Your task to perform on an android device: turn off sleep mode Image 0: 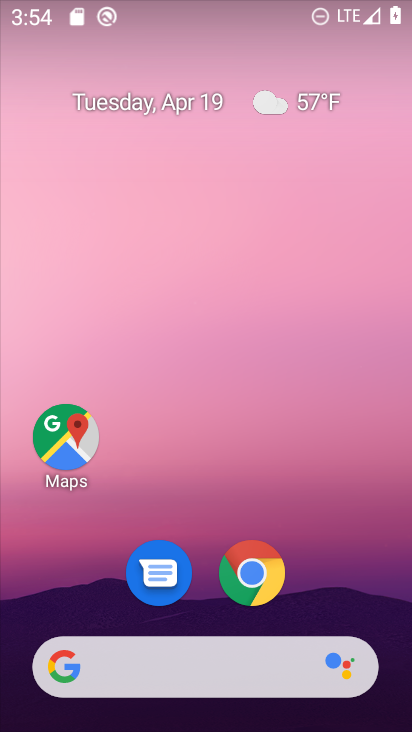
Step 0: drag from (348, 614) to (328, 5)
Your task to perform on an android device: turn off sleep mode Image 1: 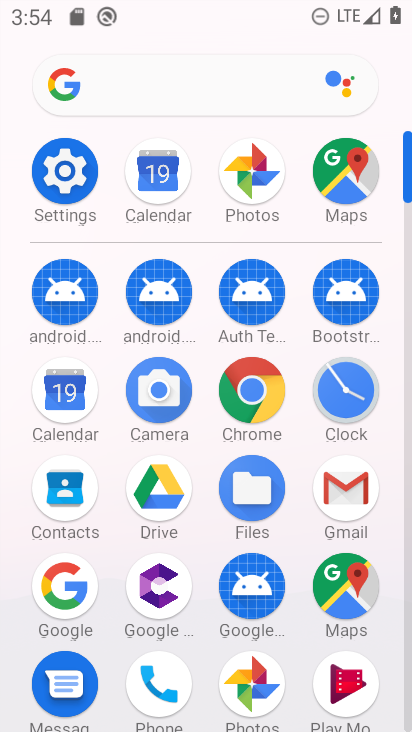
Step 1: click (71, 185)
Your task to perform on an android device: turn off sleep mode Image 2: 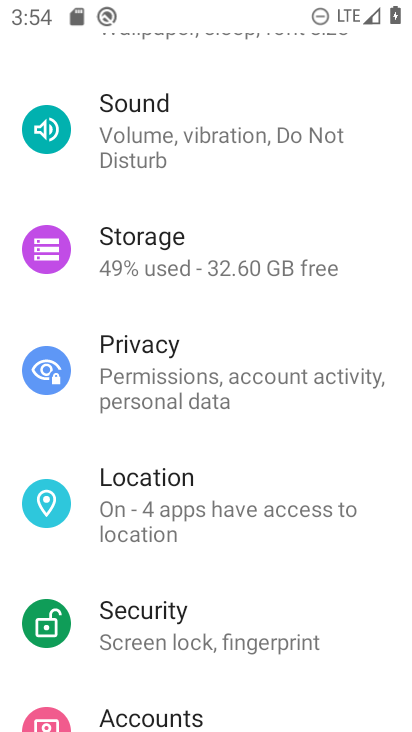
Step 2: drag from (270, 262) to (278, 465)
Your task to perform on an android device: turn off sleep mode Image 3: 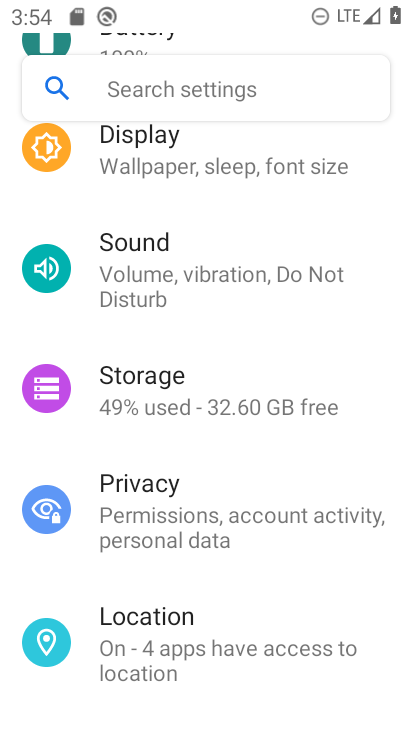
Step 3: click (171, 174)
Your task to perform on an android device: turn off sleep mode Image 4: 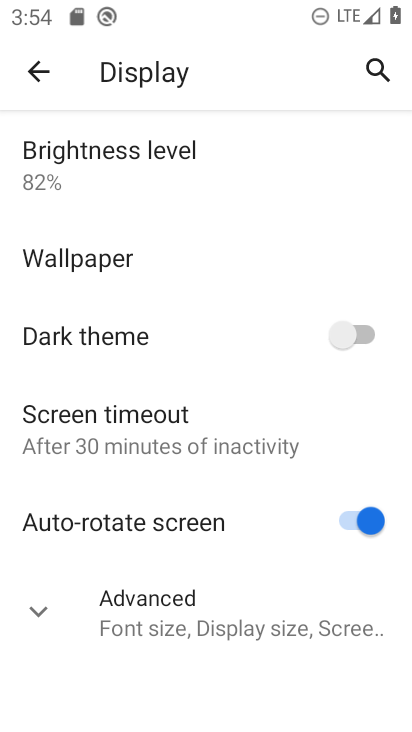
Step 4: click (33, 611)
Your task to perform on an android device: turn off sleep mode Image 5: 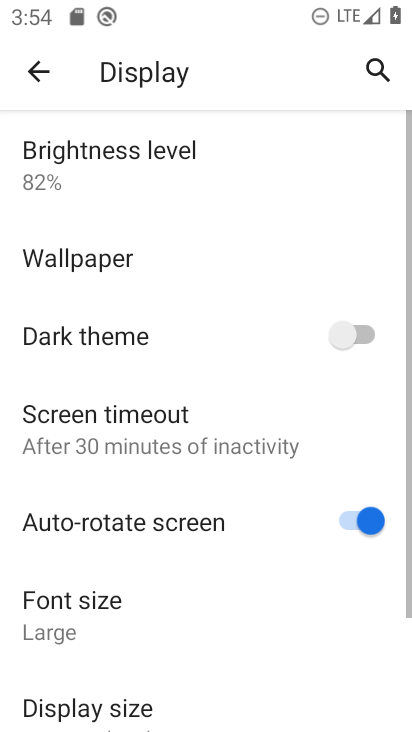
Step 5: task complete